Your task to perform on an android device: Search for rayovac triple a on target, select the first entry, add it to the cart, then select checkout. Image 0: 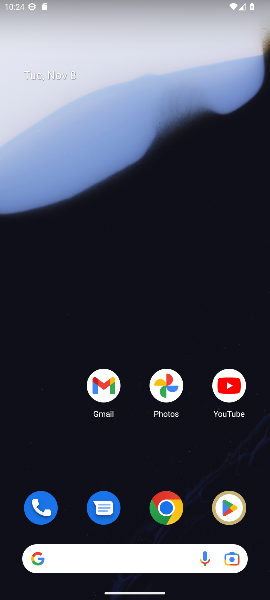
Step 0: click (171, 521)
Your task to perform on an android device: Search for rayovac triple a on target, select the first entry, add it to the cart, then select checkout. Image 1: 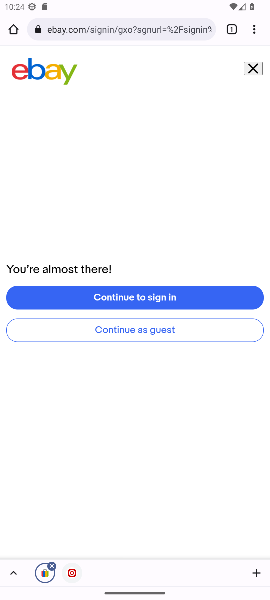
Step 1: click (116, 25)
Your task to perform on an android device: Search for rayovac triple a on target, select the first entry, add it to the cart, then select checkout. Image 2: 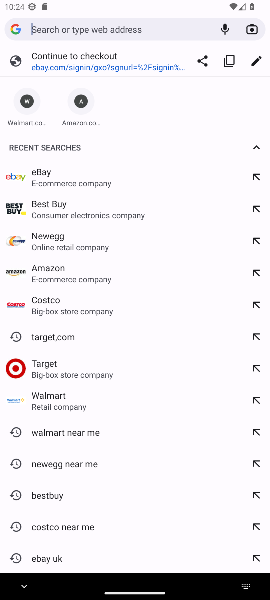
Step 2: type "target"
Your task to perform on an android device: Search for rayovac triple a on target, select the first entry, add it to the cart, then select checkout. Image 3: 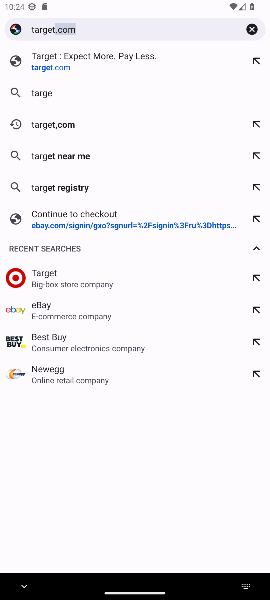
Step 3: type ""
Your task to perform on an android device: Search for rayovac triple a on target, select the first entry, add it to the cart, then select checkout. Image 4: 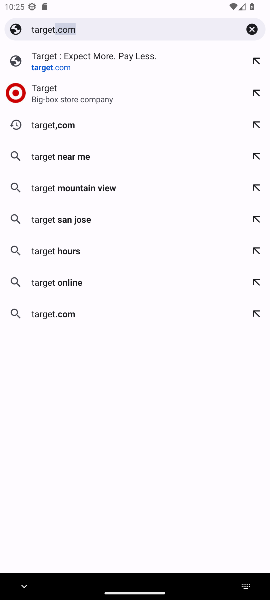
Step 4: click (46, 90)
Your task to perform on an android device: Search for rayovac triple a on target, select the first entry, add it to the cart, then select checkout. Image 5: 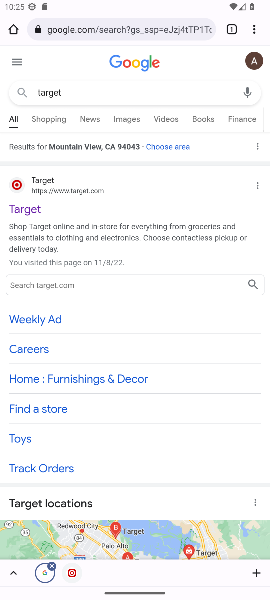
Step 5: click (28, 212)
Your task to perform on an android device: Search for rayovac triple a on target, select the first entry, add it to the cart, then select checkout. Image 6: 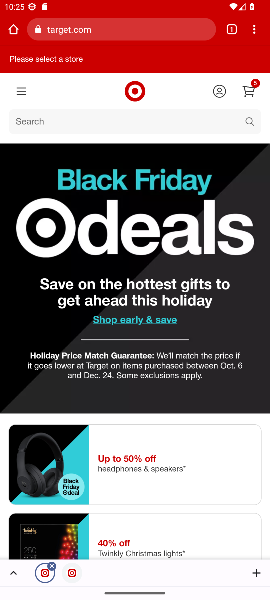
Step 6: click (250, 125)
Your task to perform on an android device: Search for rayovac triple a on target, select the first entry, add it to the cart, then select checkout. Image 7: 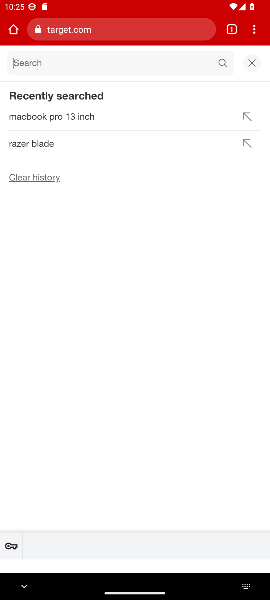
Step 7: type "rayovac triple"
Your task to perform on an android device: Search for rayovac triple a on target, select the first entry, add it to the cart, then select checkout. Image 8: 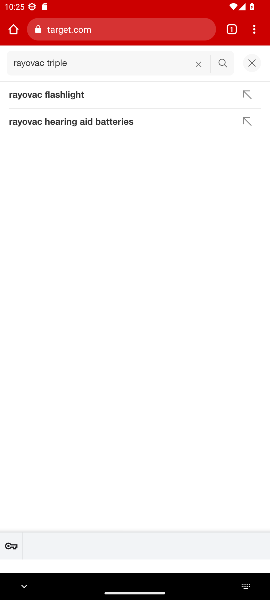
Step 8: click (63, 96)
Your task to perform on an android device: Search for rayovac triple a on target, select the first entry, add it to the cart, then select checkout. Image 9: 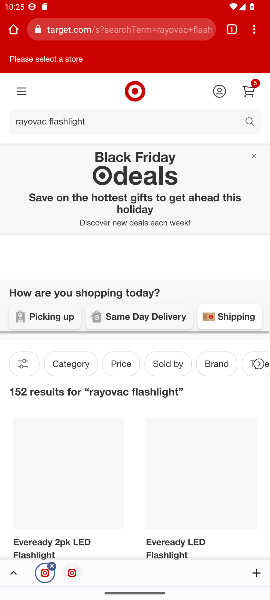
Step 9: drag from (112, 477) to (137, 46)
Your task to perform on an android device: Search for rayovac triple a on target, select the first entry, add it to the cart, then select checkout. Image 10: 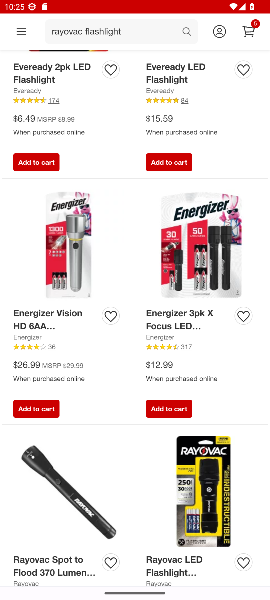
Step 10: click (182, 264)
Your task to perform on an android device: Search for rayovac triple a on target, select the first entry, add it to the cart, then select checkout. Image 11: 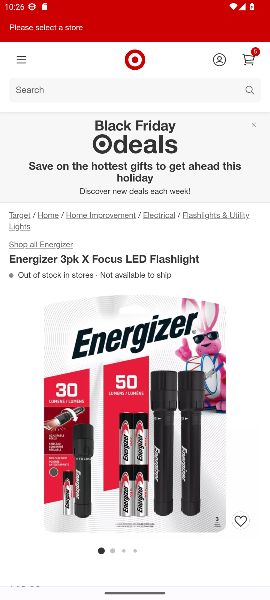
Step 11: drag from (136, 438) to (187, 104)
Your task to perform on an android device: Search for rayovac triple a on target, select the first entry, add it to the cart, then select checkout. Image 12: 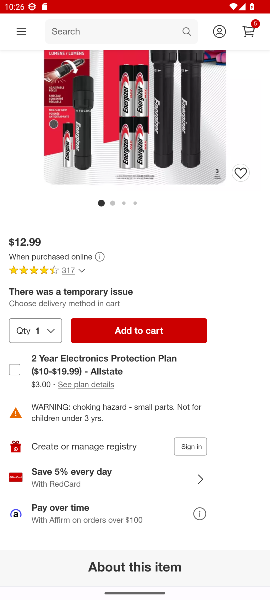
Step 12: click (144, 334)
Your task to perform on an android device: Search for rayovac triple a on target, select the first entry, add it to the cart, then select checkout. Image 13: 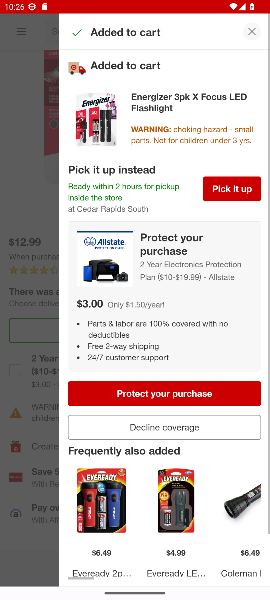
Step 13: click (147, 394)
Your task to perform on an android device: Search for rayovac triple a on target, select the first entry, add it to the cart, then select checkout. Image 14: 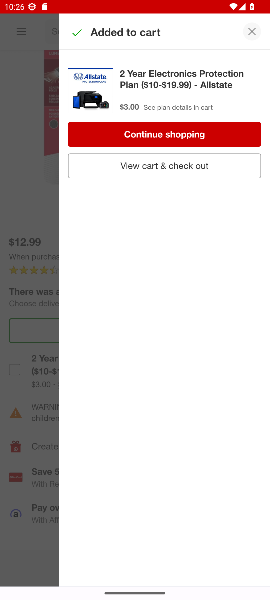
Step 14: click (142, 167)
Your task to perform on an android device: Search for rayovac triple a on target, select the first entry, add it to the cart, then select checkout. Image 15: 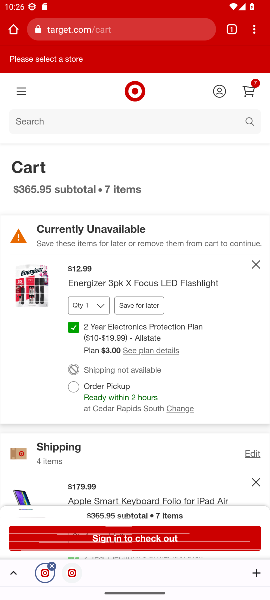
Step 15: click (126, 540)
Your task to perform on an android device: Search for rayovac triple a on target, select the first entry, add it to the cart, then select checkout. Image 16: 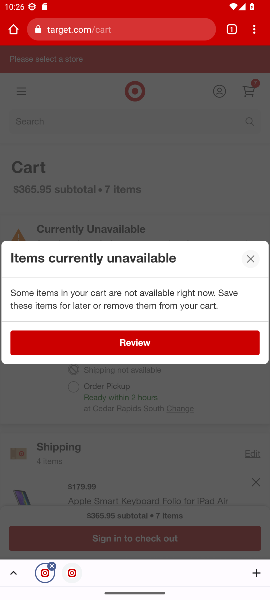
Step 16: click (249, 255)
Your task to perform on an android device: Search for rayovac triple a on target, select the first entry, add it to the cart, then select checkout. Image 17: 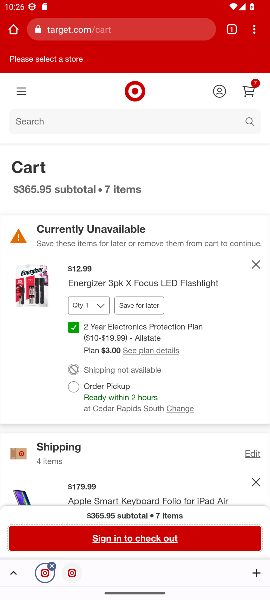
Step 17: click (154, 539)
Your task to perform on an android device: Search for rayovac triple a on target, select the first entry, add it to the cart, then select checkout. Image 18: 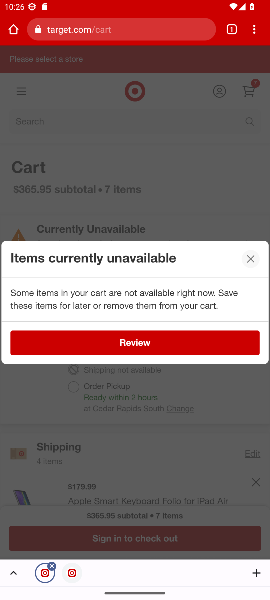
Step 18: click (254, 257)
Your task to perform on an android device: Search for rayovac triple a on target, select the first entry, add it to the cart, then select checkout. Image 19: 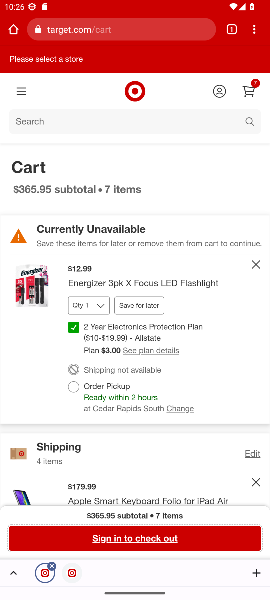
Step 19: task complete